Your task to perform on an android device: show emergency info Image 0: 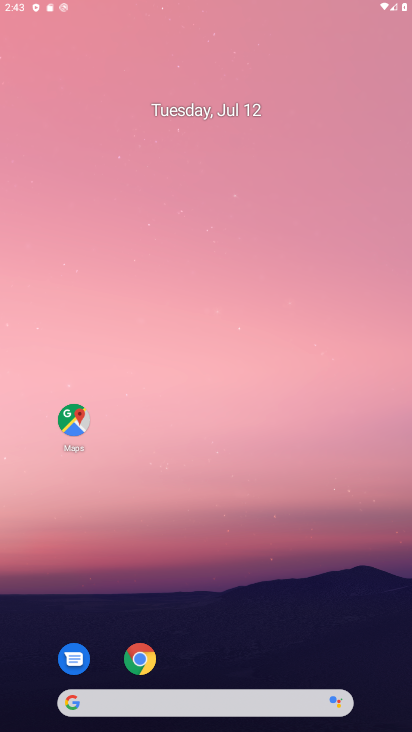
Step 0: drag from (306, 172) to (354, 37)
Your task to perform on an android device: show emergency info Image 1: 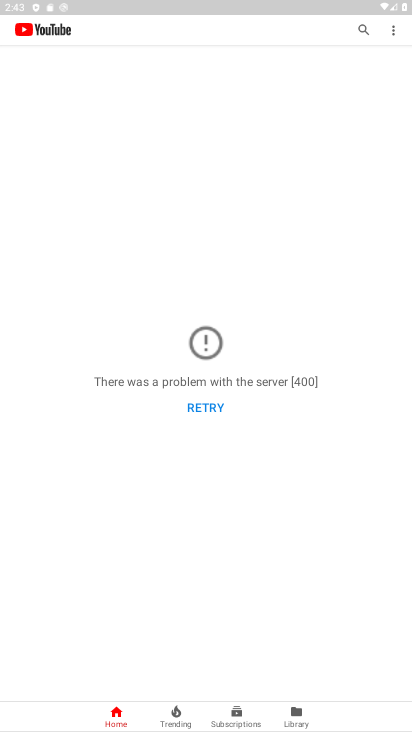
Step 1: press home button
Your task to perform on an android device: show emergency info Image 2: 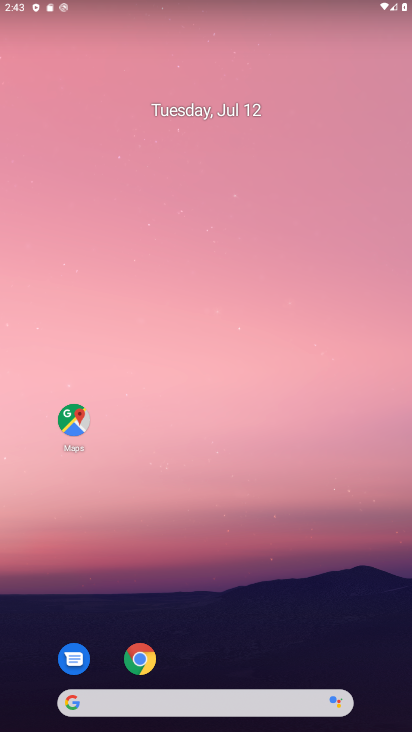
Step 2: drag from (217, 683) to (317, 134)
Your task to perform on an android device: show emergency info Image 3: 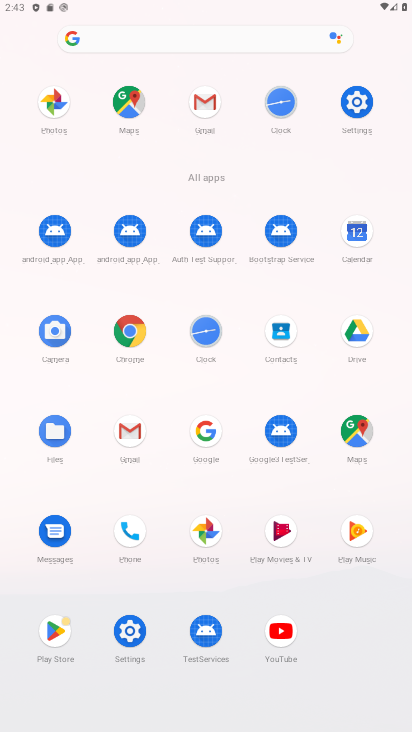
Step 3: click (123, 634)
Your task to perform on an android device: show emergency info Image 4: 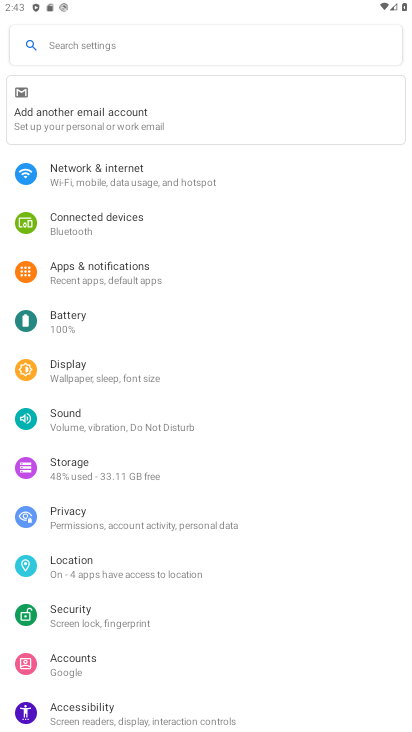
Step 4: drag from (121, 672) to (243, 159)
Your task to perform on an android device: show emergency info Image 5: 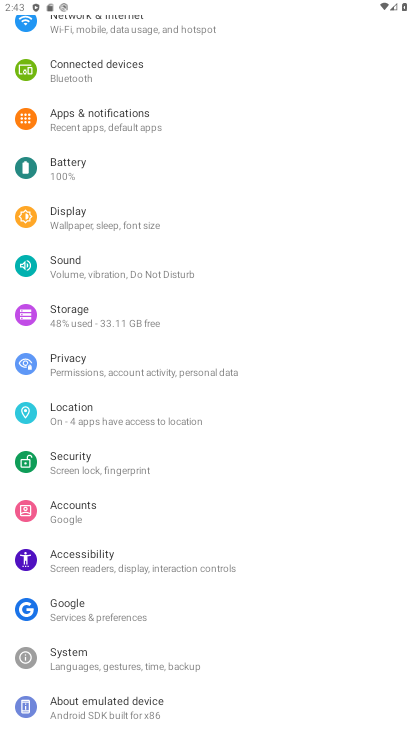
Step 5: click (157, 710)
Your task to perform on an android device: show emergency info Image 6: 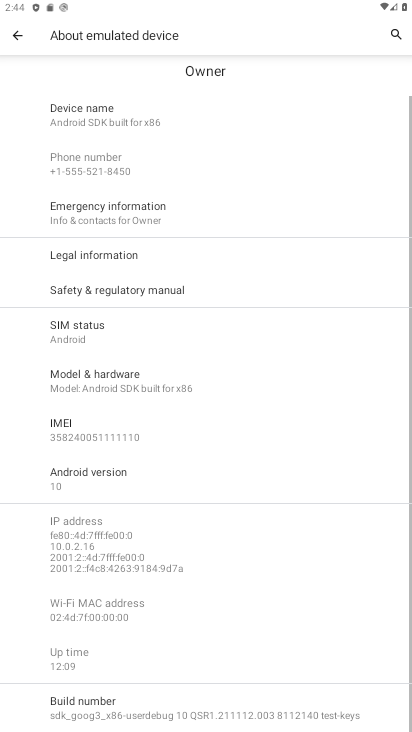
Step 6: click (131, 224)
Your task to perform on an android device: show emergency info Image 7: 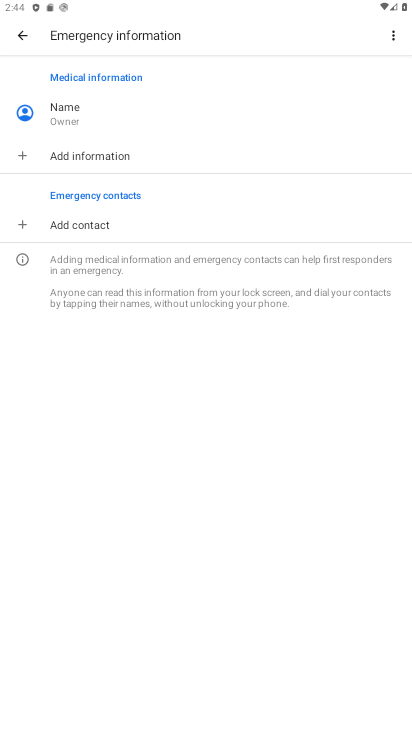
Step 7: task complete